Your task to perform on an android device: Open calendar and show me the third week of next month Image 0: 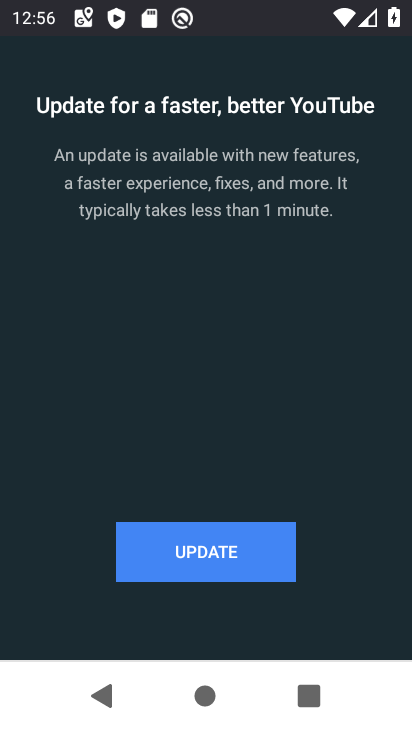
Step 0: press home button
Your task to perform on an android device: Open calendar and show me the third week of next month Image 1: 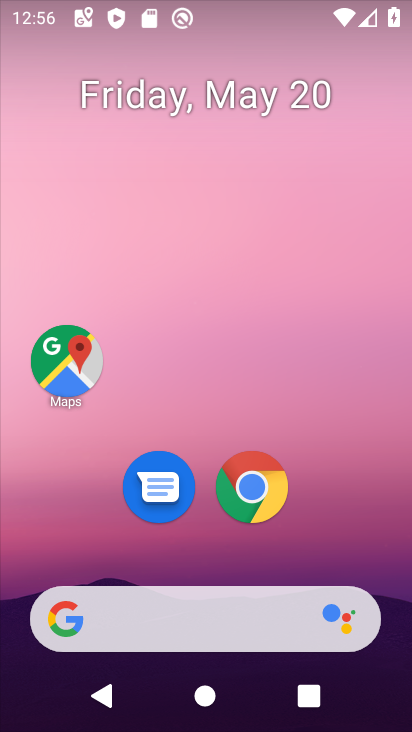
Step 1: drag from (353, 528) to (361, 115)
Your task to perform on an android device: Open calendar and show me the third week of next month Image 2: 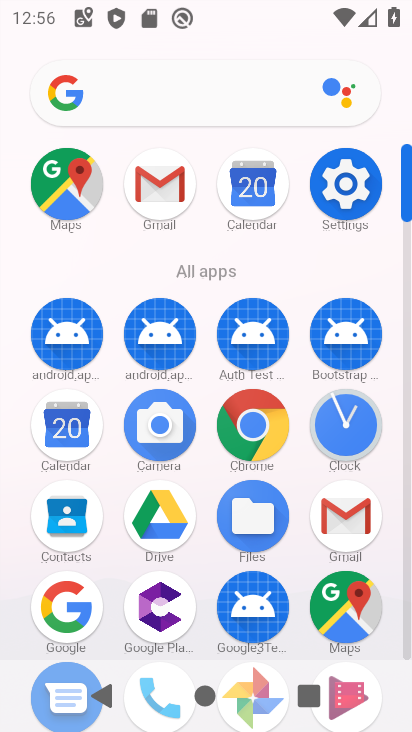
Step 2: click (65, 421)
Your task to perform on an android device: Open calendar and show me the third week of next month Image 3: 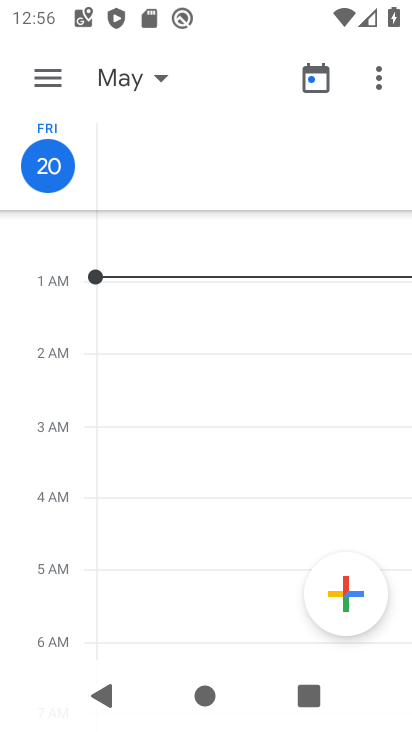
Step 3: click (48, 66)
Your task to perform on an android device: Open calendar and show me the third week of next month Image 4: 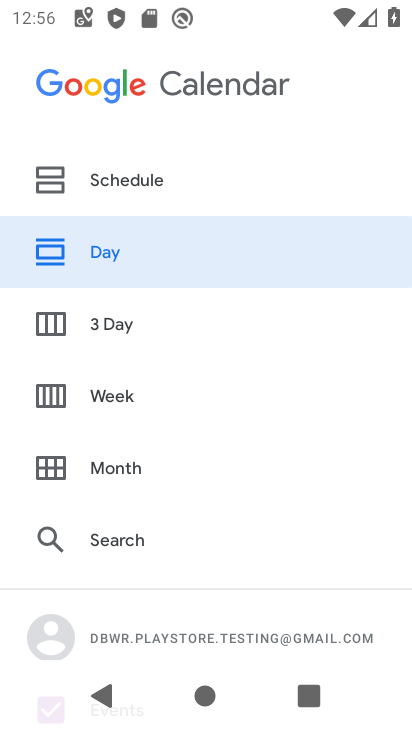
Step 4: click (100, 249)
Your task to perform on an android device: Open calendar and show me the third week of next month Image 5: 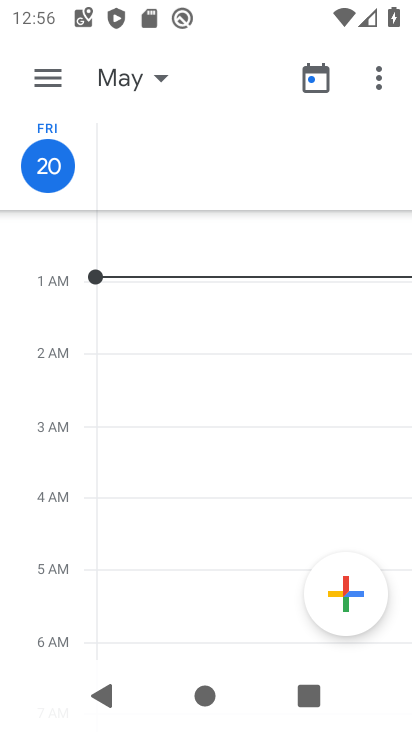
Step 5: click (127, 85)
Your task to perform on an android device: Open calendar and show me the third week of next month Image 6: 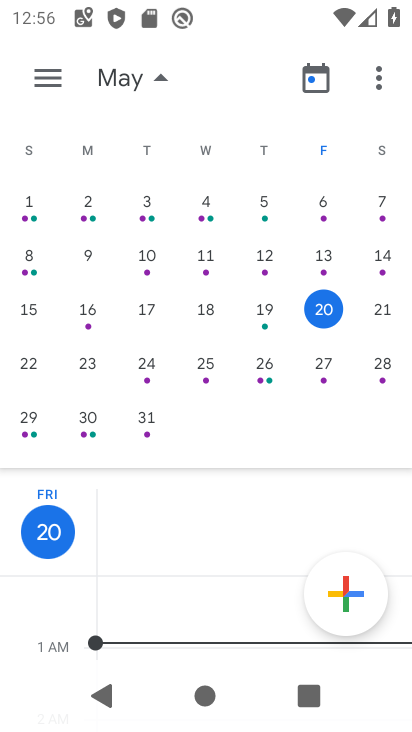
Step 6: drag from (344, 228) to (77, 226)
Your task to perform on an android device: Open calendar and show me the third week of next month Image 7: 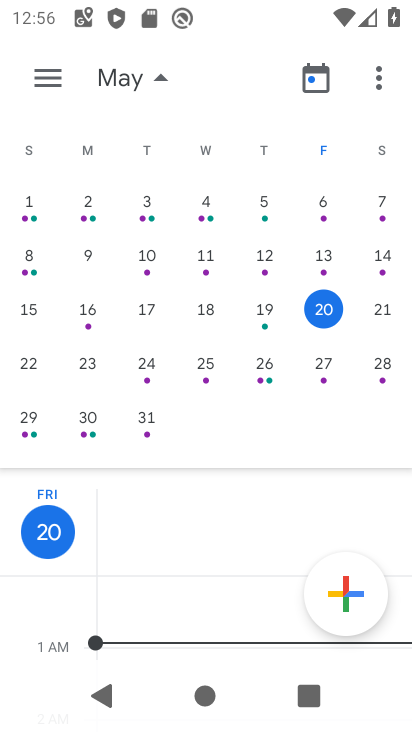
Step 7: click (98, 354)
Your task to perform on an android device: Open calendar and show me the third week of next month Image 8: 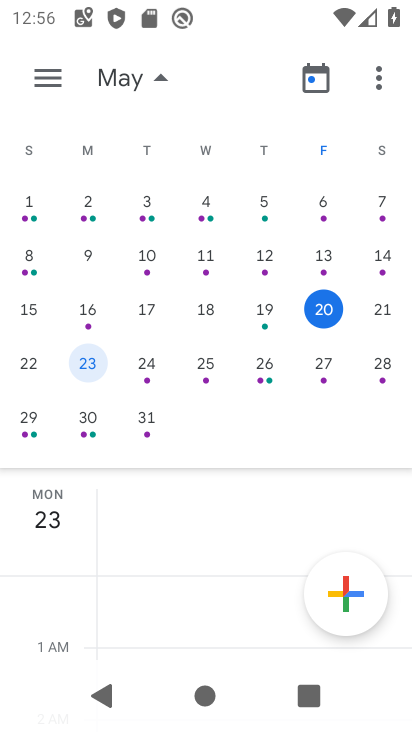
Step 8: drag from (378, 245) to (77, 265)
Your task to perform on an android device: Open calendar and show me the third week of next month Image 9: 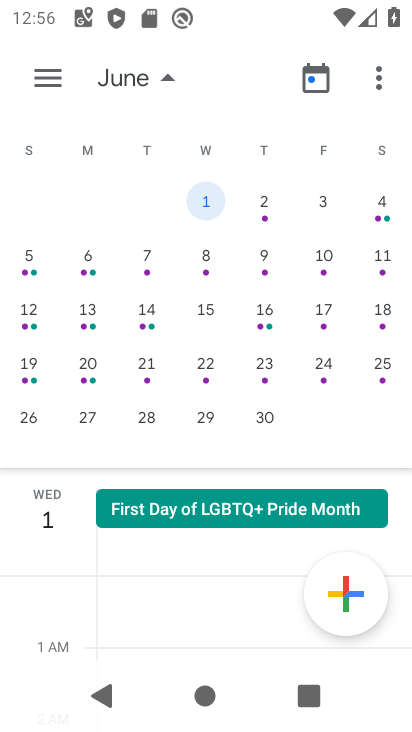
Step 9: click (89, 364)
Your task to perform on an android device: Open calendar and show me the third week of next month Image 10: 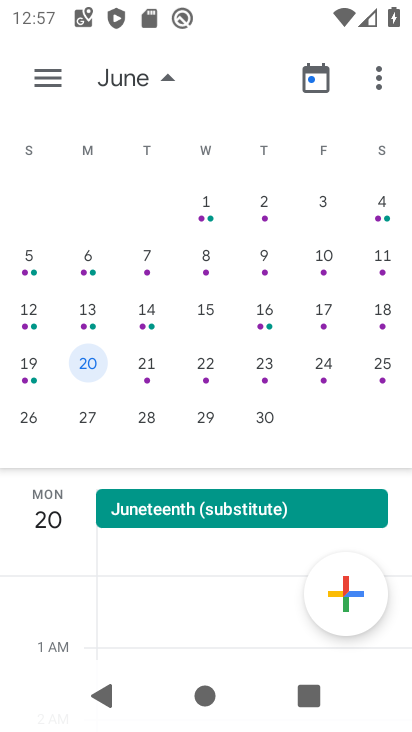
Step 10: click (44, 78)
Your task to perform on an android device: Open calendar and show me the third week of next month Image 11: 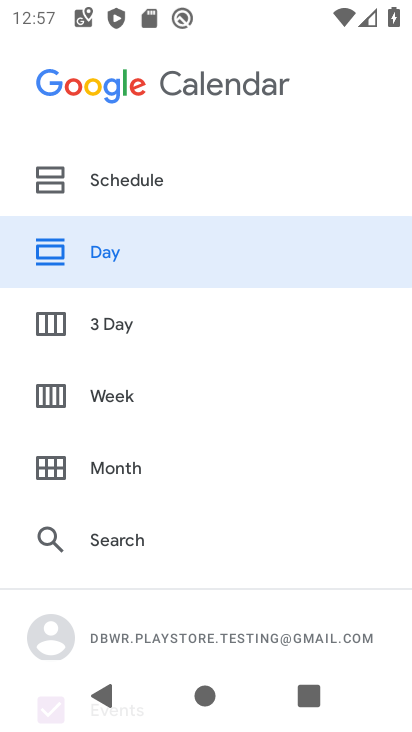
Step 11: click (97, 401)
Your task to perform on an android device: Open calendar and show me the third week of next month Image 12: 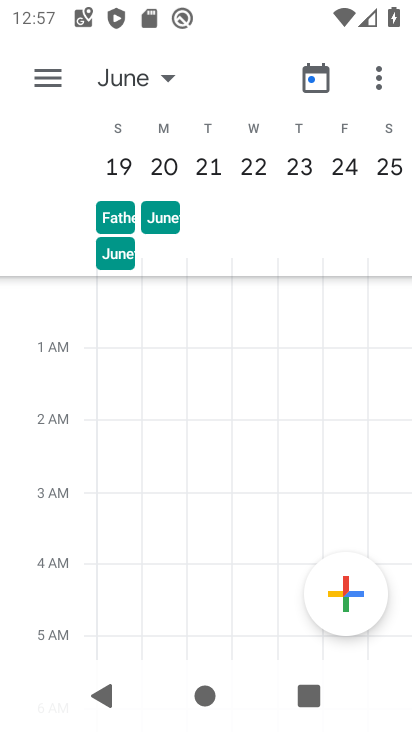
Step 12: task complete